Your task to perform on an android device: toggle show notifications on the lock screen Image 0: 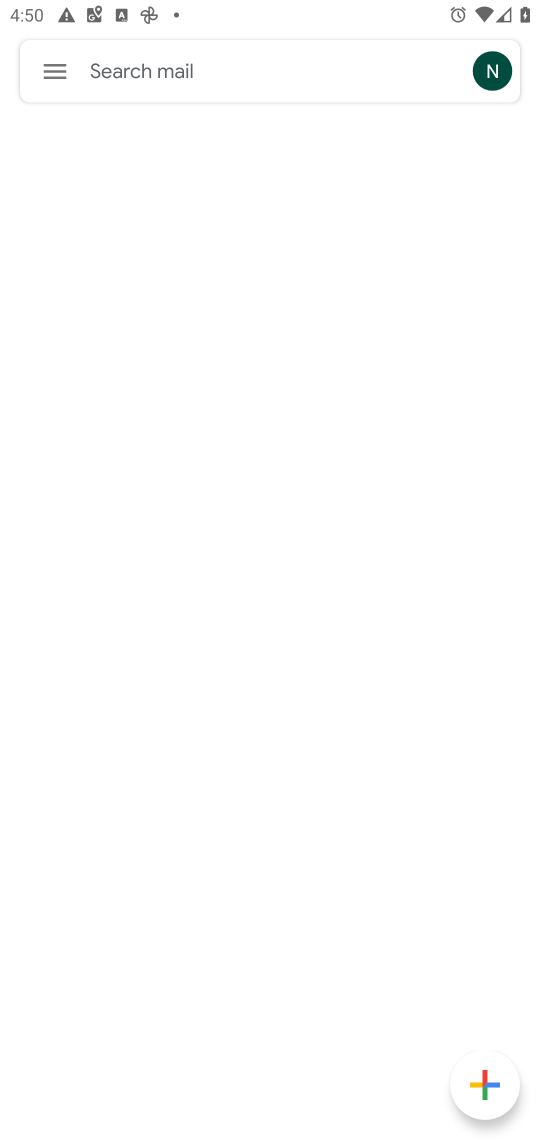
Step 0: press home button
Your task to perform on an android device: toggle show notifications on the lock screen Image 1: 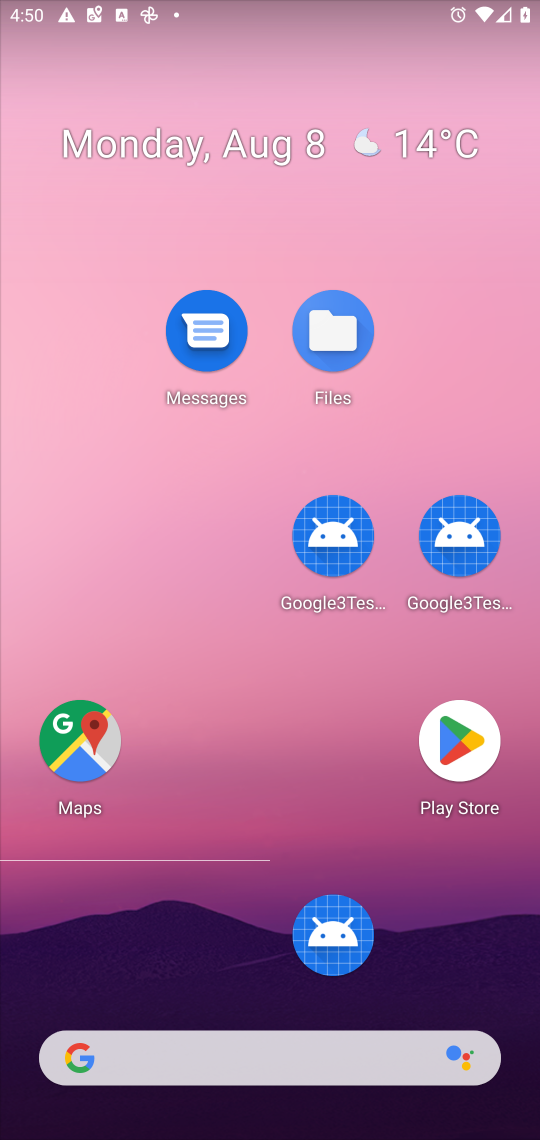
Step 1: drag from (290, 1062) to (384, 209)
Your task to perform on an android device: toggle show notifications on the lock screen Image 2: 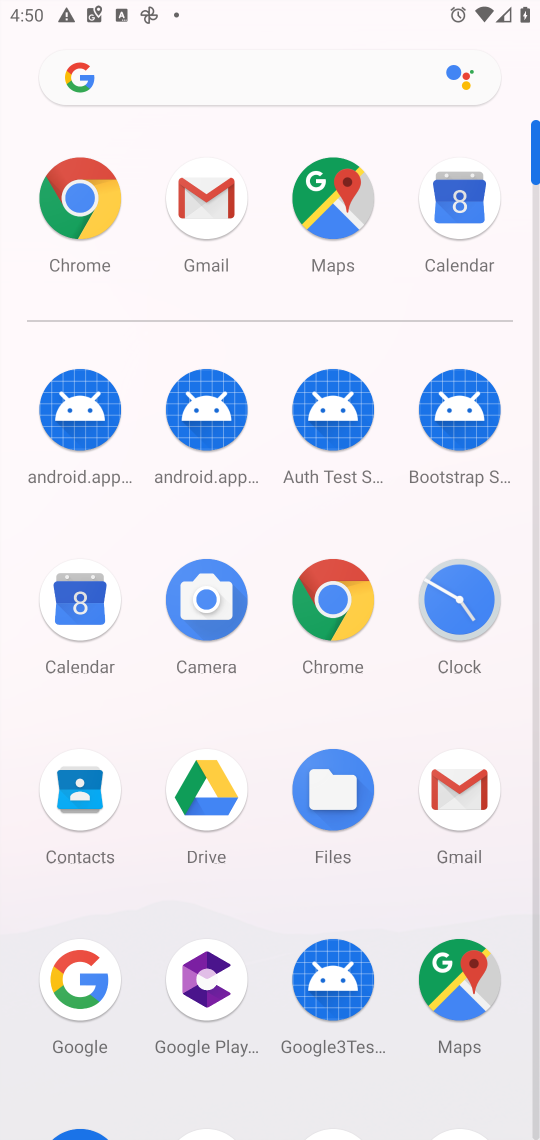
Step 2: drag from (390, 1069) to (465, 253)
Your task to perform on an android device: toggle show notifications on the lock screen Image 3: 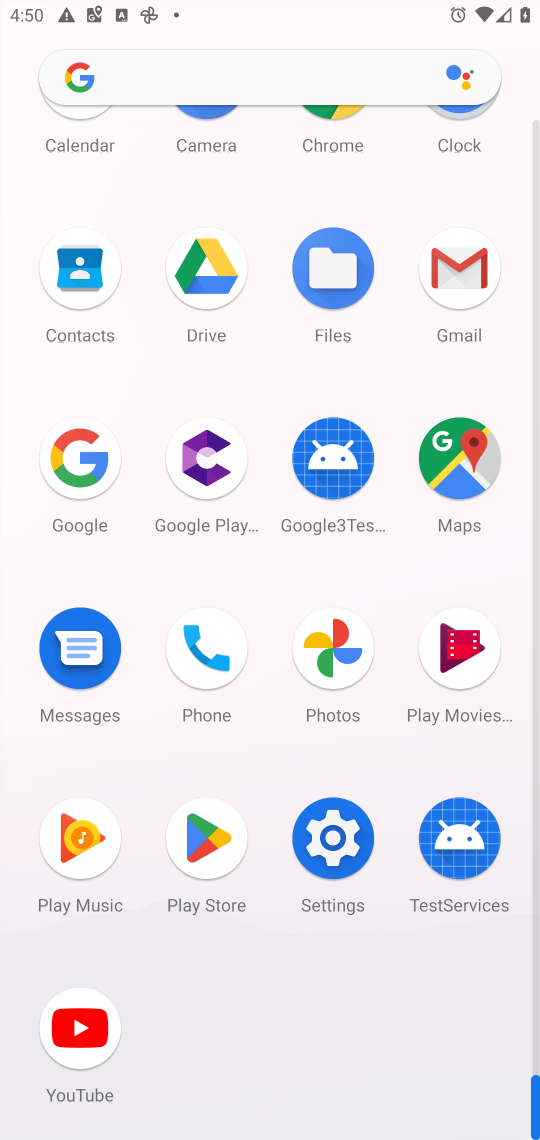
Step 3: click (337, 856)
Your task to perform on an android device: toggle show notifications on the lock screen Image 4: 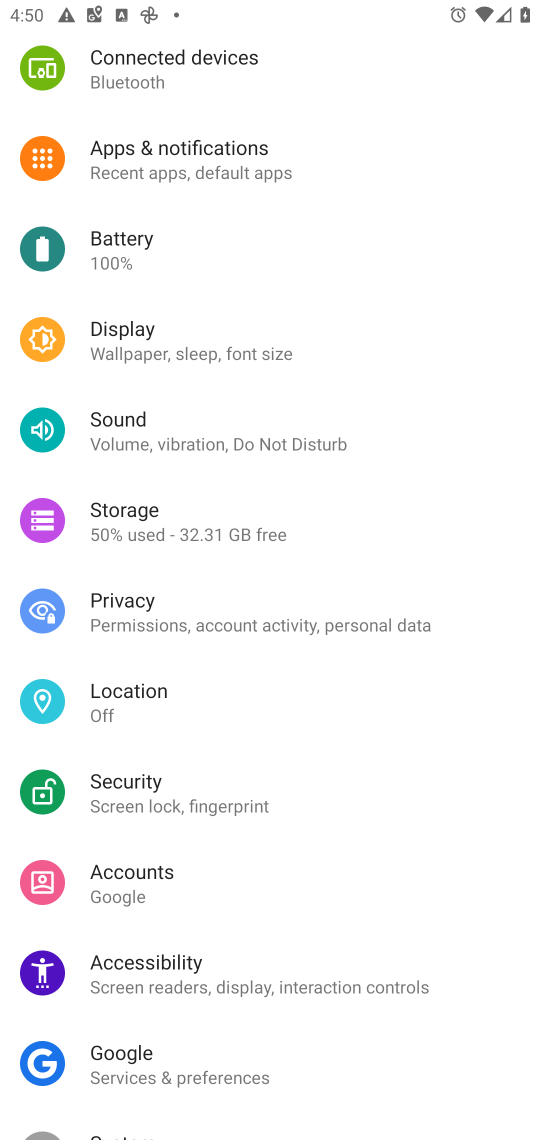
Step 4: click (247, 150)
Your task to perform on an android device: toggle show notifications on the lock screen Image 5: 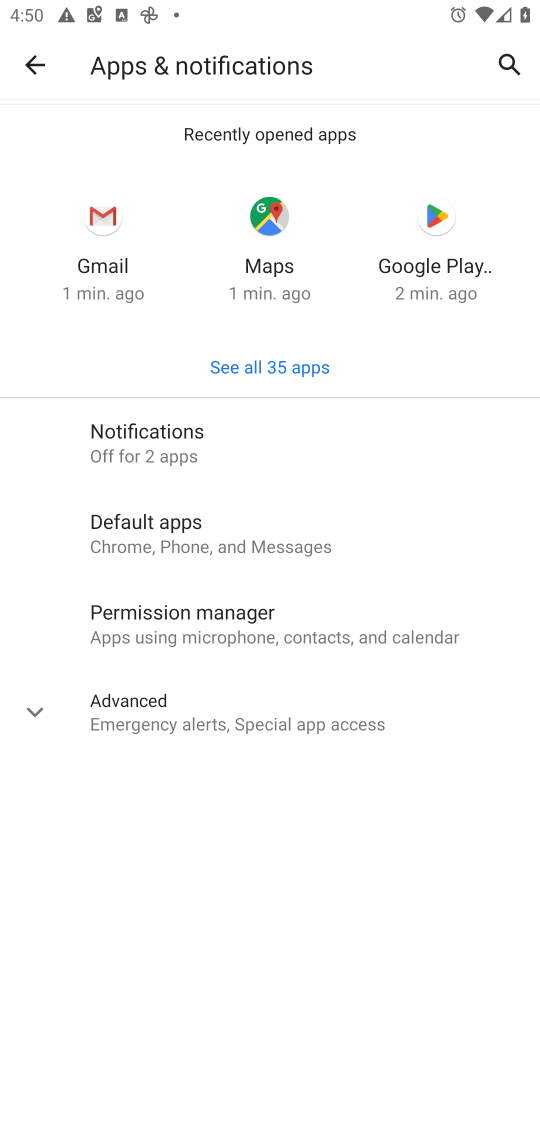
Step 5: click (187, 440)
Your task to perform on an android device: toggle show notifications on the lock screen Image 6: 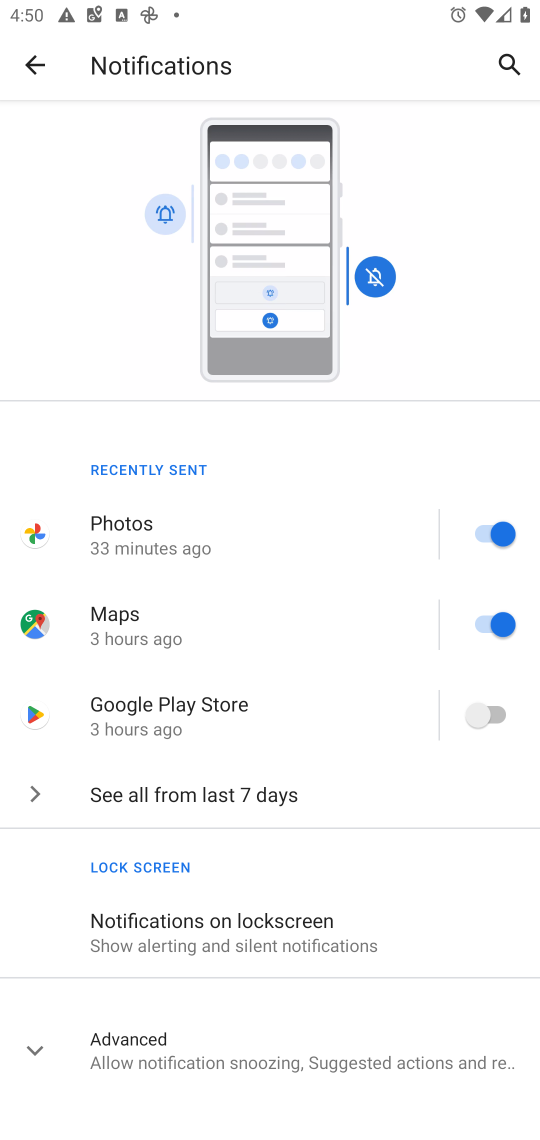
Step 6: click (245, 914)
Your task to perform on an android device: toggle show notifications on the lock screen Image 7: 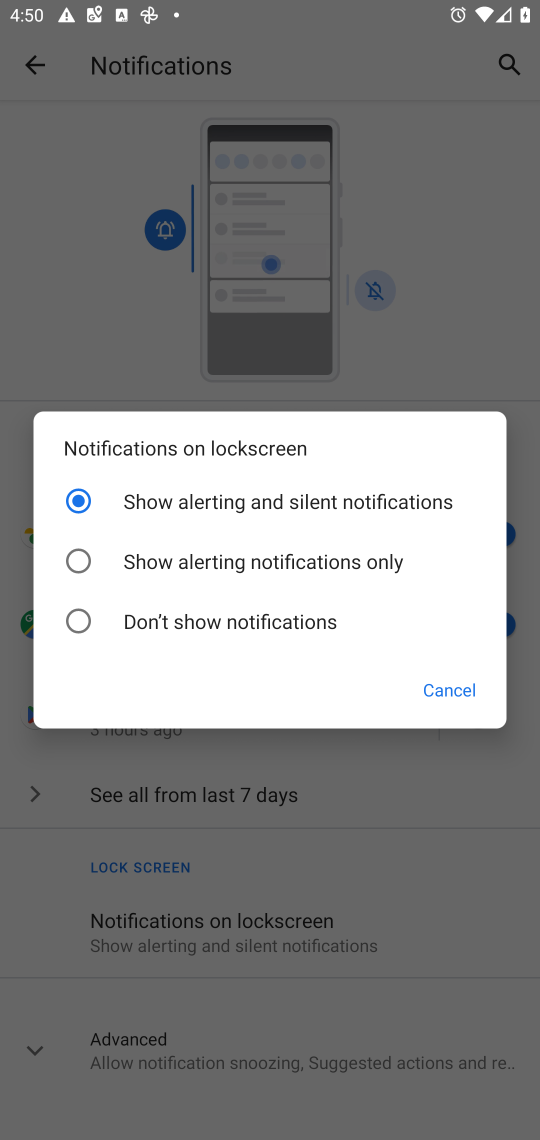
Step 7: click (76, 611)
Your task to perform on an android device: toggle show notifications on the lock screen Image 8: 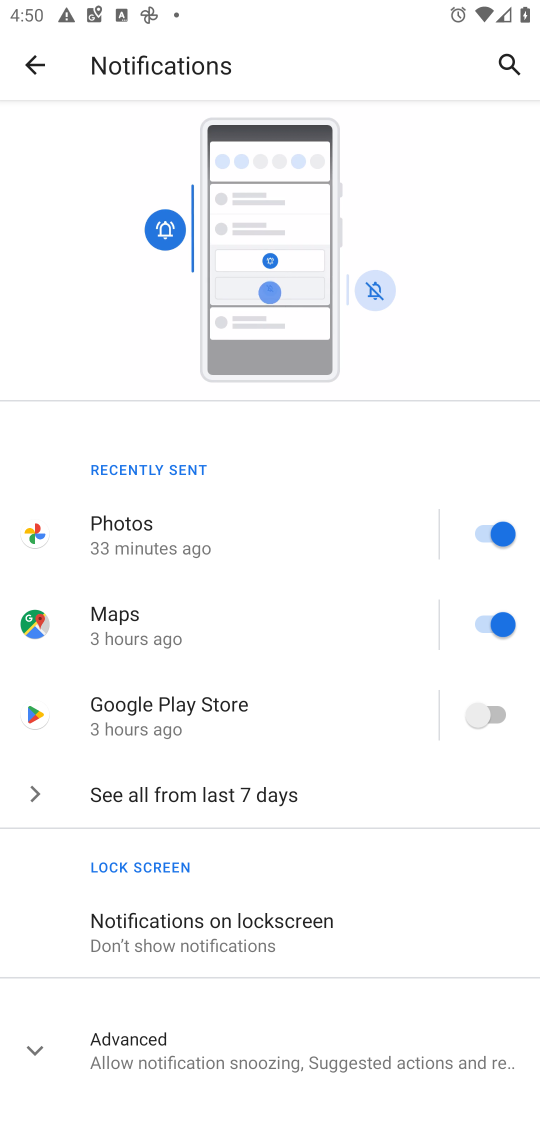
Step 8: task complete